Your task to perform on an android device: Is it going to rain today? Image 0: 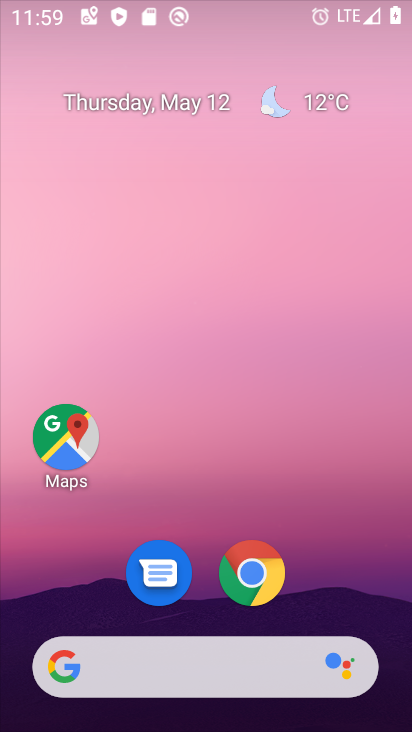
Step 0: drag from (242, 706) to (280, 41)
Your task to perform on an android device: Is it going to rain today? Image 1: 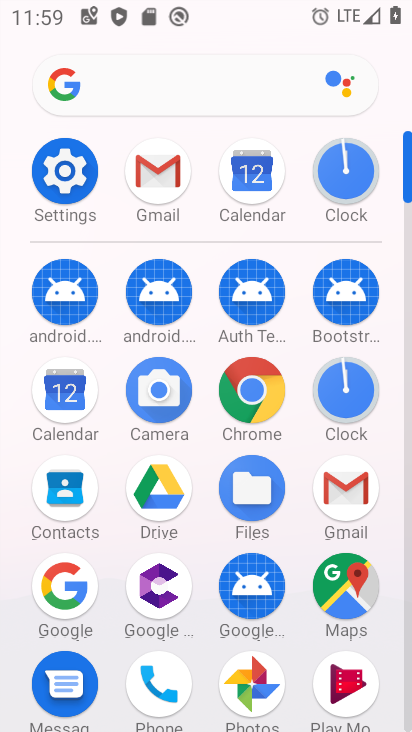
Step 1: click (52, 164)
Your task to perform on an android device: Is it going to rain today? Image 2: 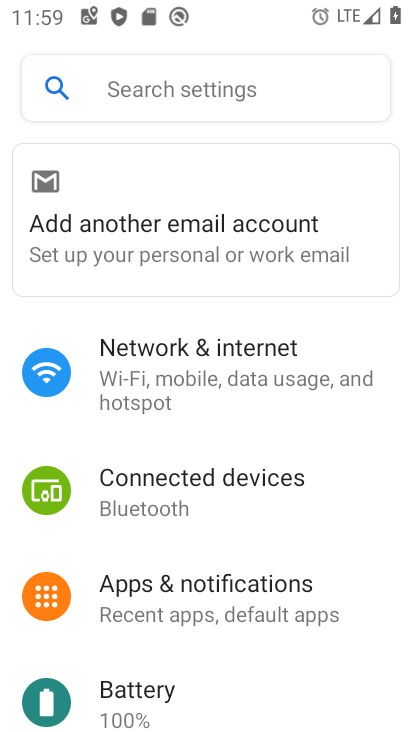
Step 2: press home button
Your task to perform on an android device: Is it going to rain today? Image 3: 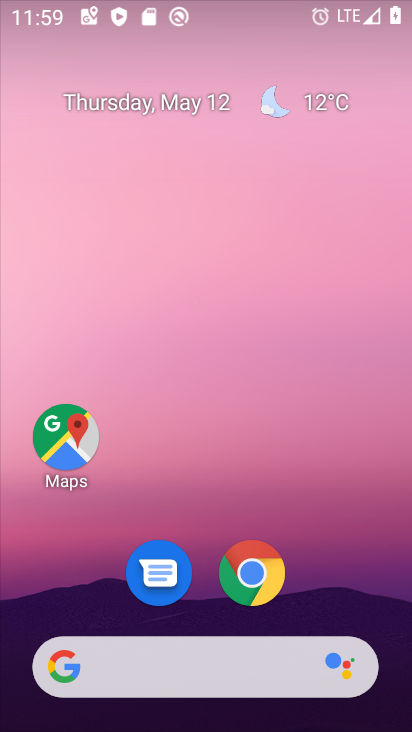
Step 3: click (224, 675)
Your task to perform on an android device: Is it going to rain today? Image 4: 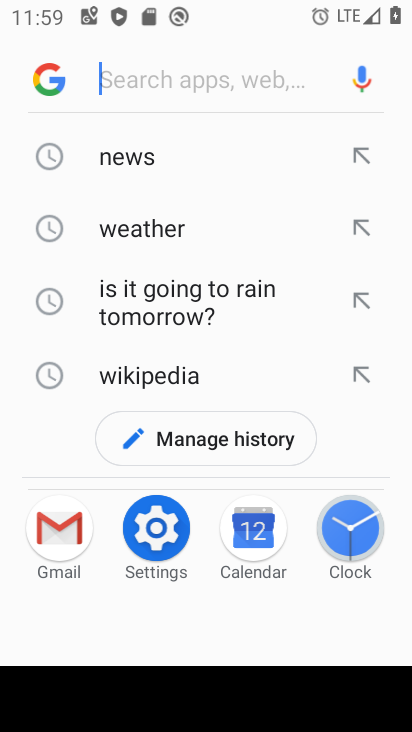
Step 4: click (241, 83)
Your task to perform on an android device: Is it going to rain today? Image 5: 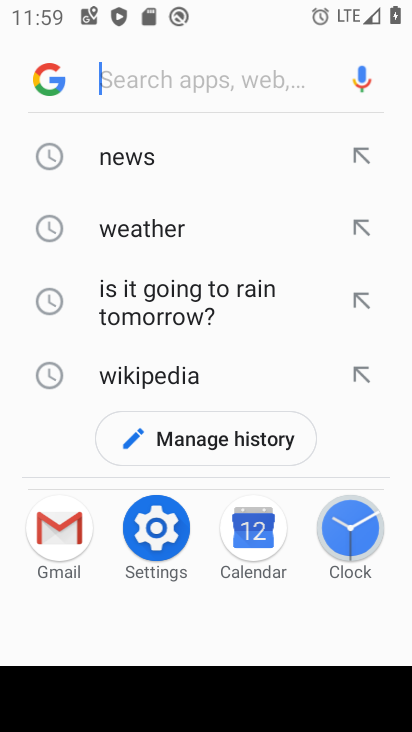
Step 5: type "Is it going to rain today?"
Your task to perform on an android device: Is it going to rain today? Image 6: 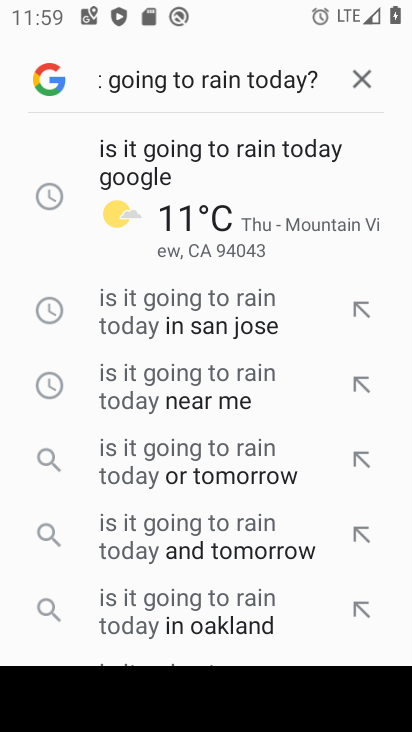
Step 6: click (245, 151)
Your task to perform on an android device: Is it going to rain today? Image 7: 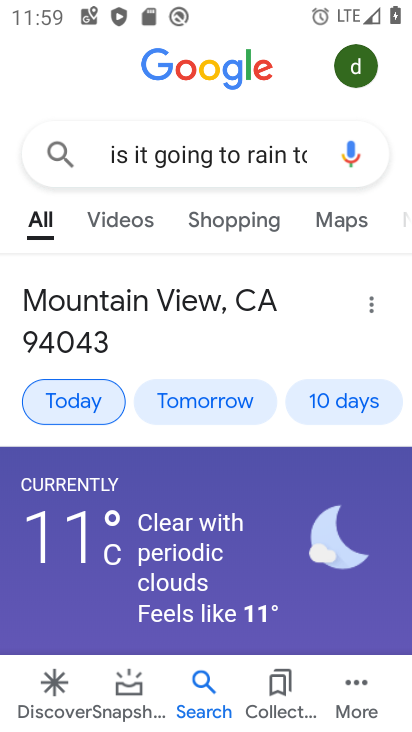
Step 7: task complete